Your task to perform on an android device: change the clock display to show seconds Image 0: 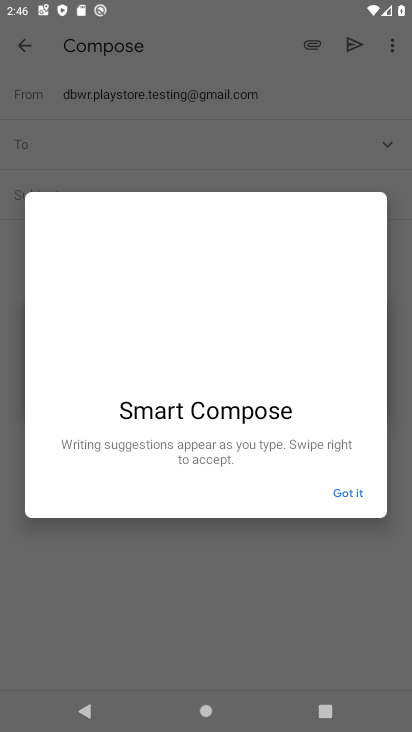
Step 0: press home button
Your task to perform on an android device: change the clock display to show seconds Image 1: 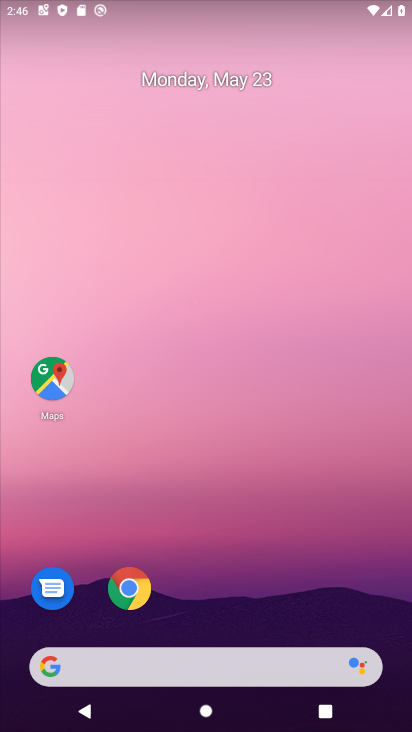
Step 1: drag from (230, 728) to (232, 129)
Your task to perform on an android device: change the clock display to show seconds Image 2: 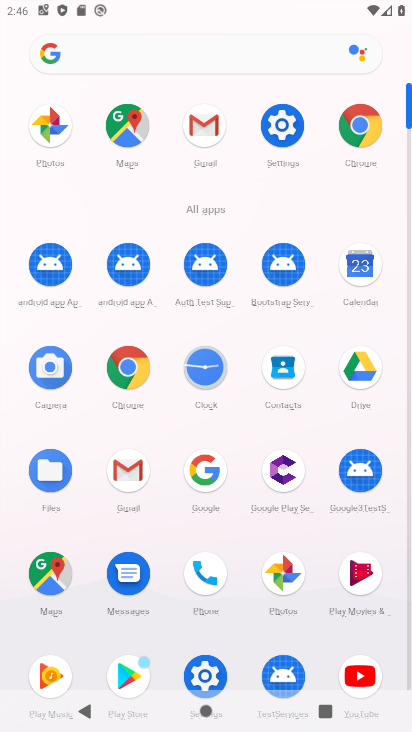
Step 2: click (196, 367)
Your task to perform on an android device: change the clock display to show seconds Image 3: 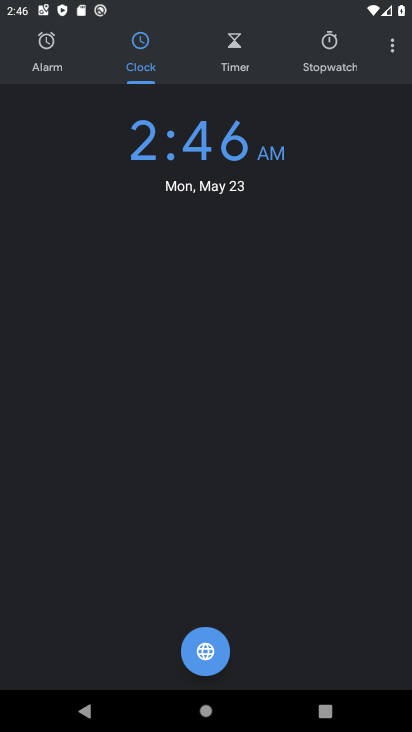
Step 3: click (391, 50)
Your task to perform on an android device: change the clock display to show seconds Image 4: 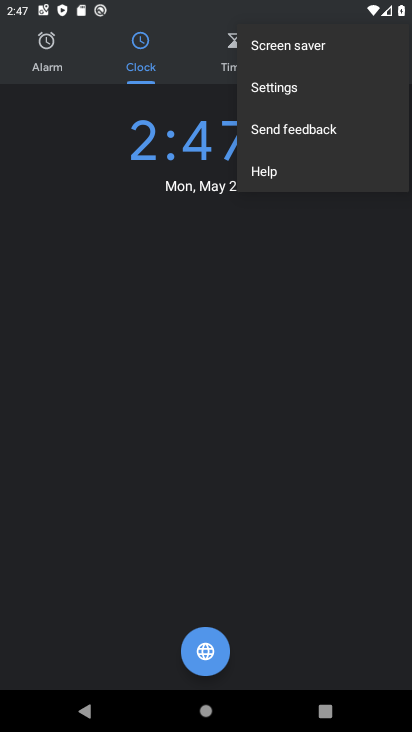
Step 4: click (287, 92)
Your task to perform on an android device: change the clock display to show seconds Image 5: 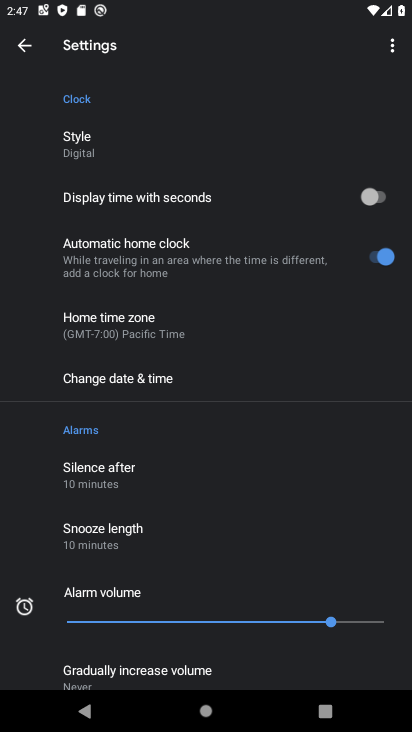
Step 5: click (387, 196)
Your task to perform on an android device: change the clock display to show seconds Image 6: 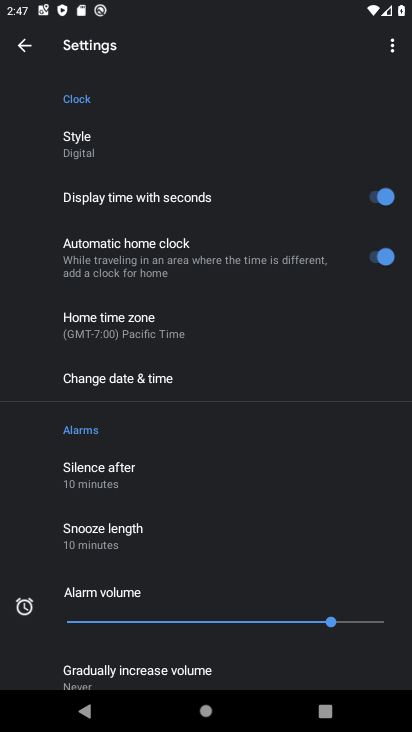
Step 6: task complete